Your task to perform on an android device: Open Yahoo.com Image 0: 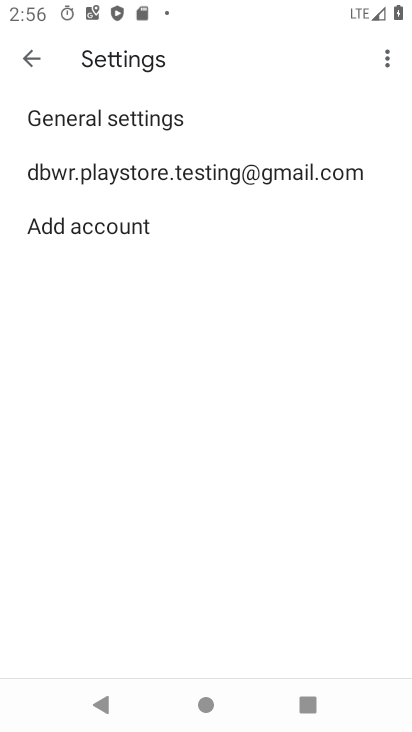
Step 0: press home button
Your task to perform on an android device: Open Yahoo.com Image 1: 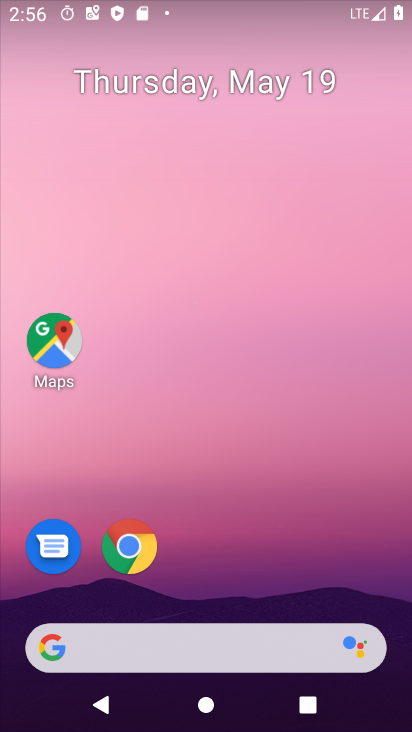
Step 1: click (125, 544)
Your task to perform on an android device: Open Yahoo.com Image 2: 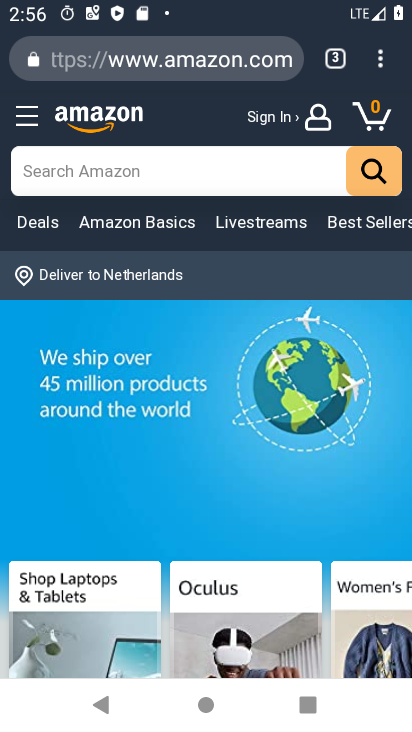
Step 2: click (335, 45)
Your task to perform on an android device: Open Yahoo.com Image 3: 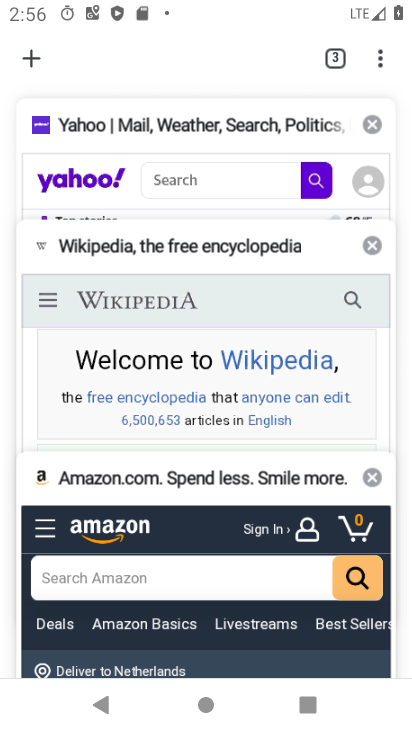
Step 3: click (59, 139)
Your task to perform on an android device: Open Yahoo.com Image 4: 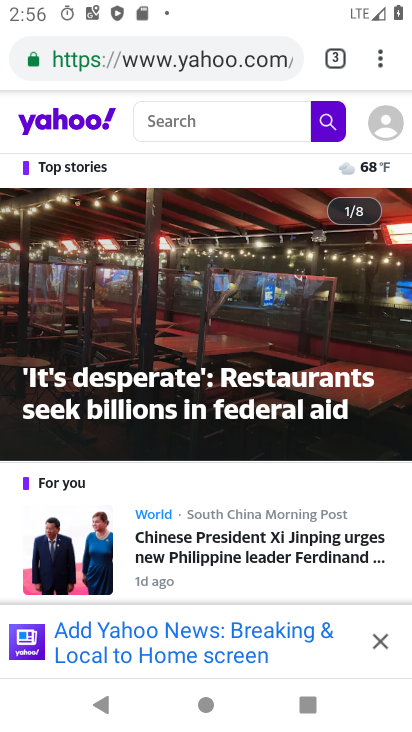
Step 4: task complete